Your task to perform on an android device: change the clock display to analog Image 0: 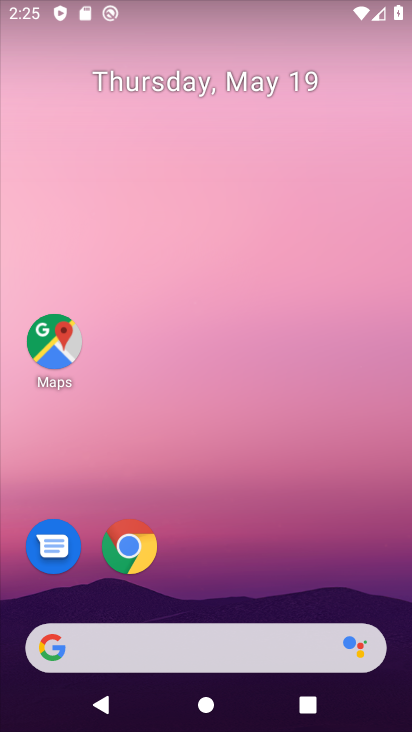
Step 0: press home button
Your task to perform on an android device: change the clock display to analog Image 1: 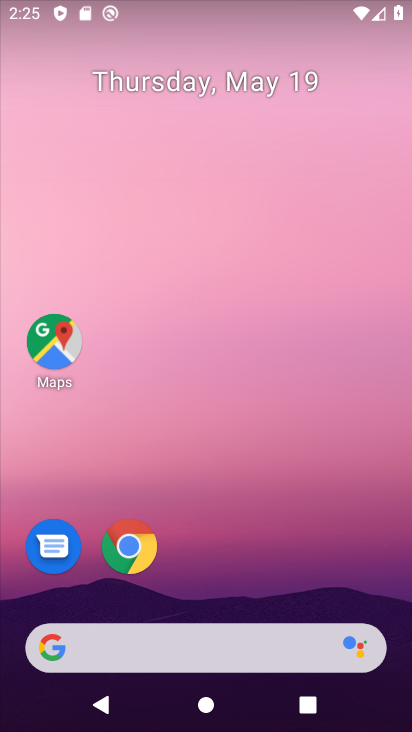
Step 1: drag from (188, 648) to (301, 207)
Your task to perform on an android device: change the clock display to analog Image 2: 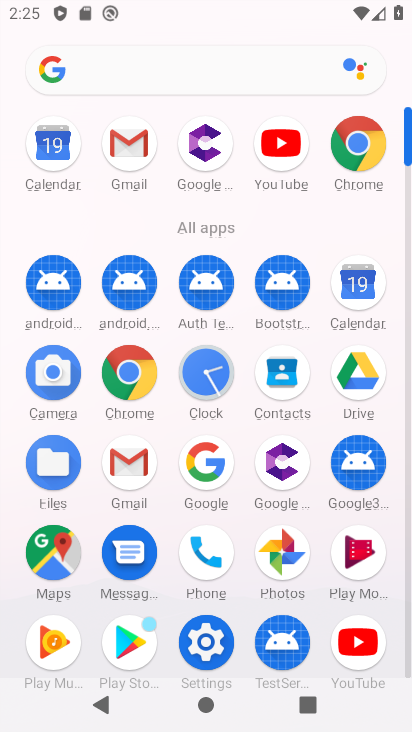
Step 2: click (203, 384)
Your task to perform on an android device: change the clock display to analog Image 3: 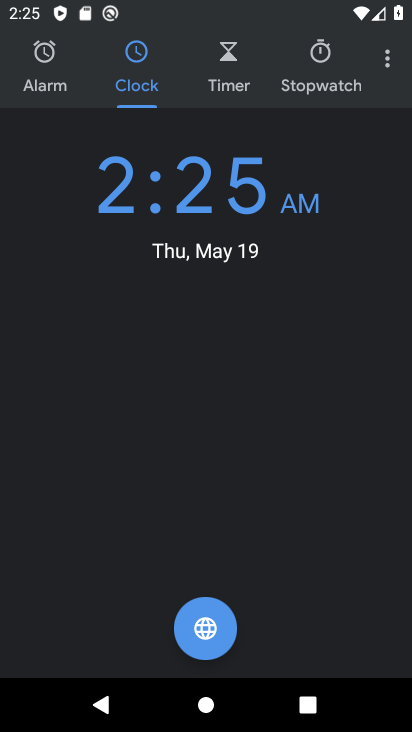
Step 3: click (387, 63)
Your task to perform on an android device: change the clock display to analog Image 4: 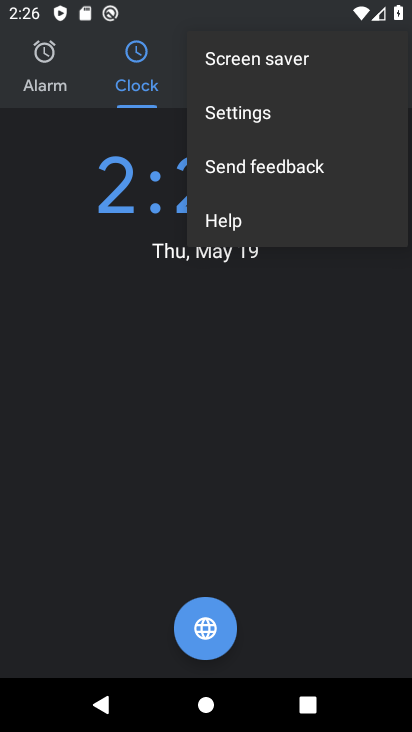
Step 4: click (260, 118)
Your task to perform on an android device: change the clock display to analog Image 5: 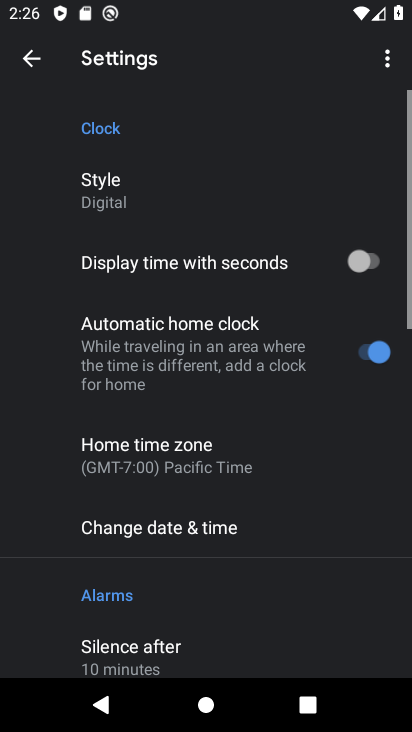
Step 5: click (109, 204)
Your task to perform on an android device: change the clock display to analog Image 6: 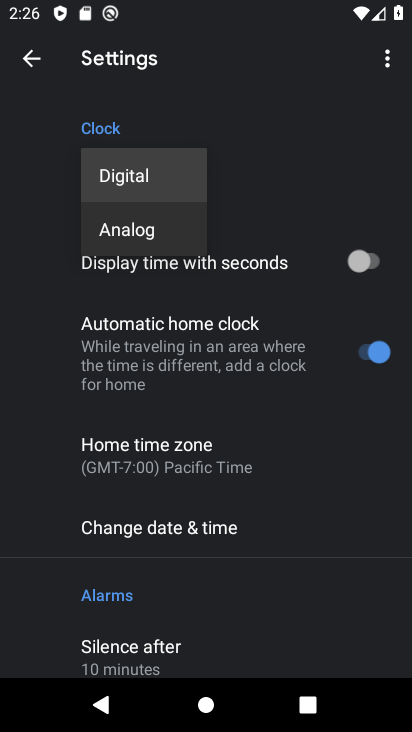
Step 6: click (136, 237)
Your task to perform on an android device: change the clock display to analog Image 7: 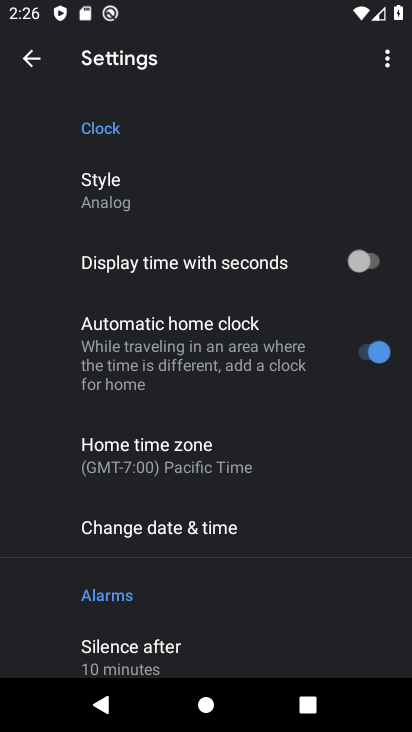
Step 7: task complete